Your task to perform on an android device: Open Google Maps and go to "Timeline" Image 0: 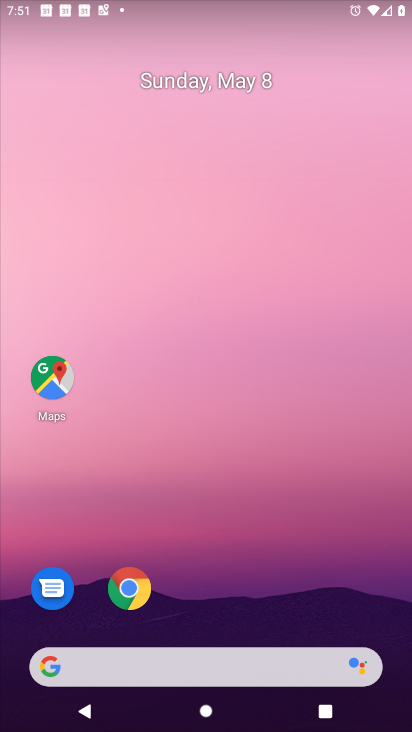
Step 0: drag from (182, 661) to (325, 130)
Your task to perform on an android device: Open Google Maps and go to "Timeline" Image 1: 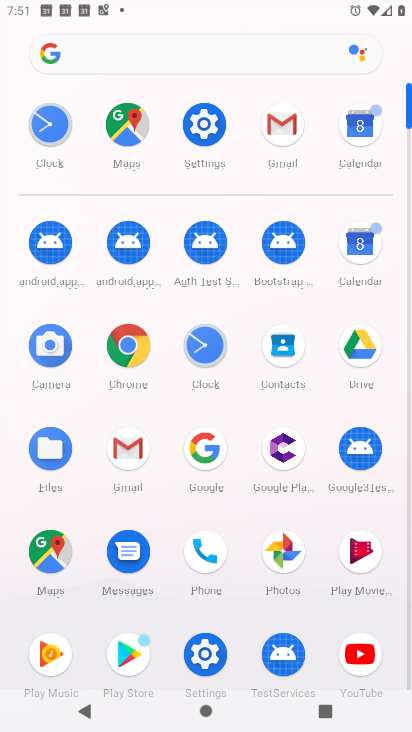
Step 1: click (127, 125)
Your task to perform on an android device: Open Google Maps and go to "Timeline" Image 2: 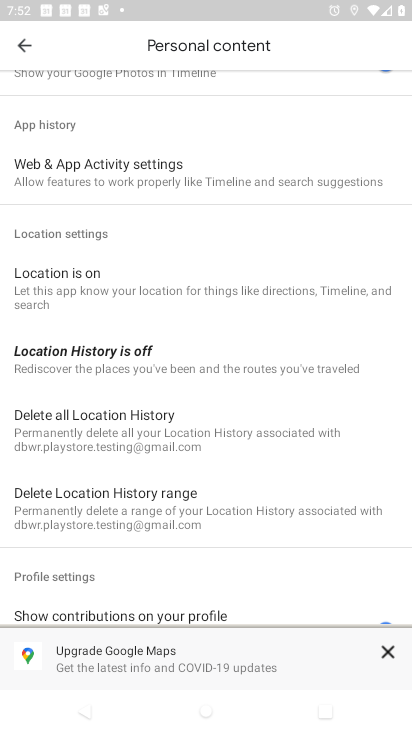
Step 2: click (24, 49)
Your task to perform on an android device: Open Google Maps and go to "Timeline" Image 3: 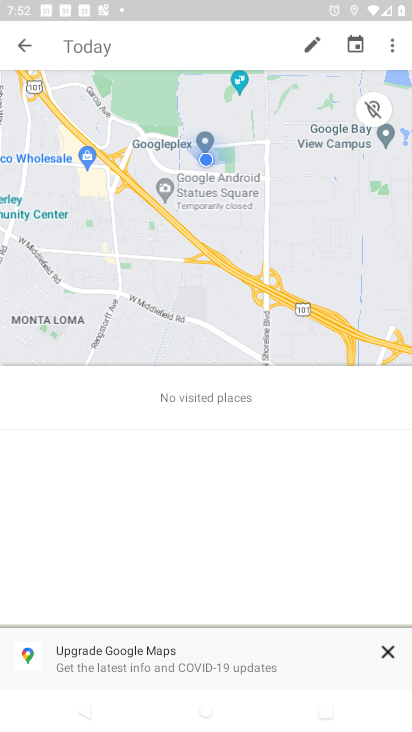
Step 3: click (25, 48)
Your task to perform on an android device: Open Google Maps and go to "Timeline" Image 4: 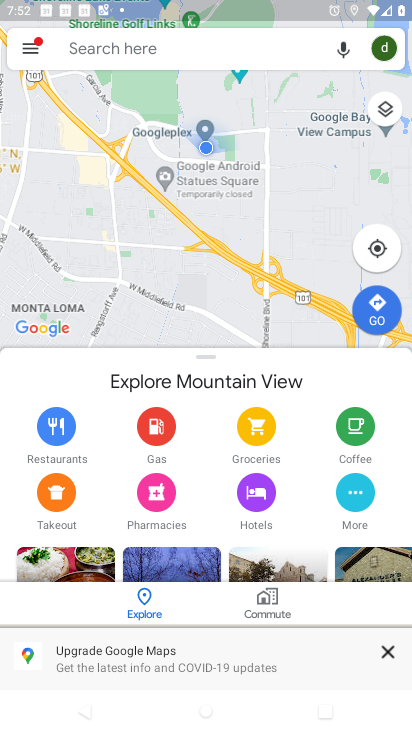
Step 4: click (25, 51)
Your task to perform on an android device: Open Google Maps and go to "Timeline" Image 5: 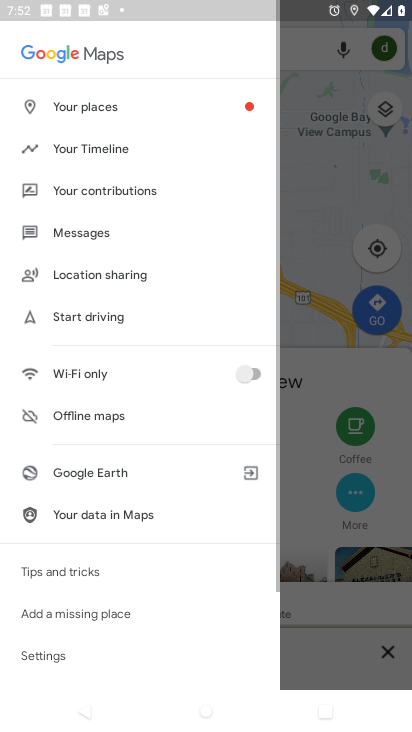
Step 5: click (113, 151)
Your task to perform on an android device: Open Google Maps and go to "Timeline" Image 6: 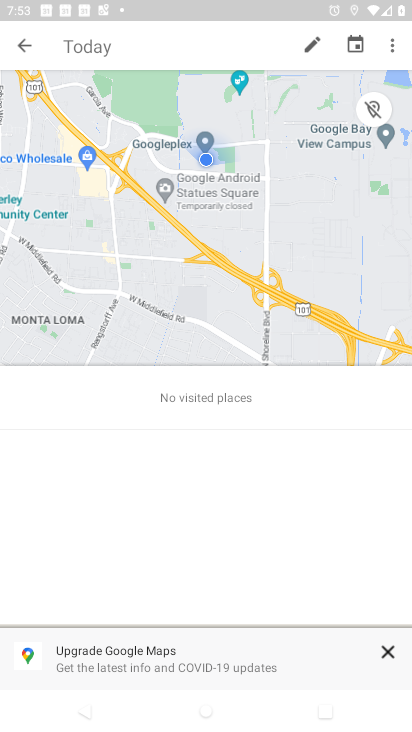
Step 6: task complete